Your task to perform on an android device: check battery use Image 0: 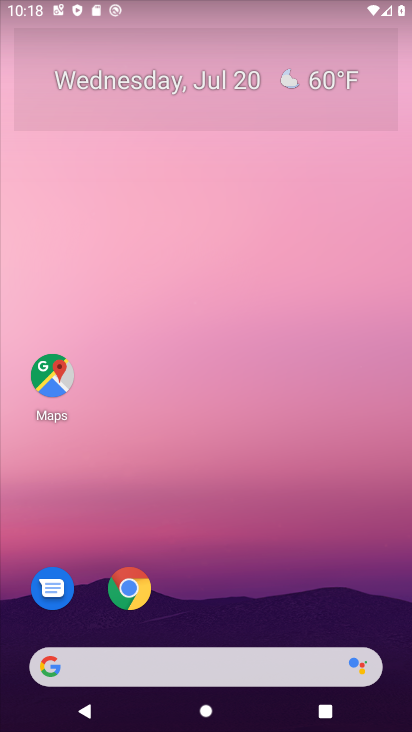
Step 0: drag from (240, 619) to (263, 162)
Your task to perform on an android device: check battery use Image 1: 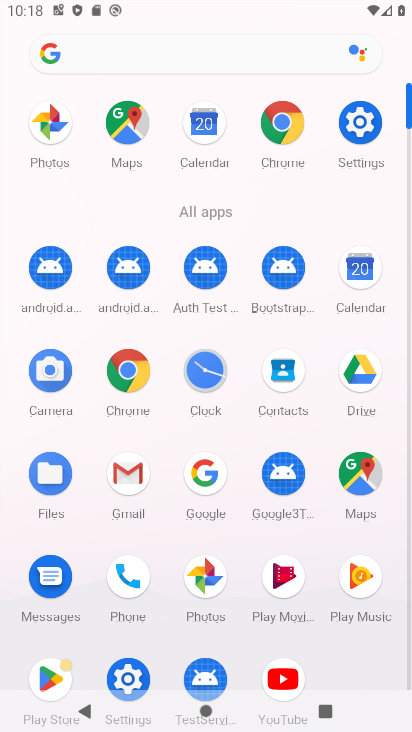
Step 1: click (127, 669)
Your task to perform on an android device: check battery use Image 2: 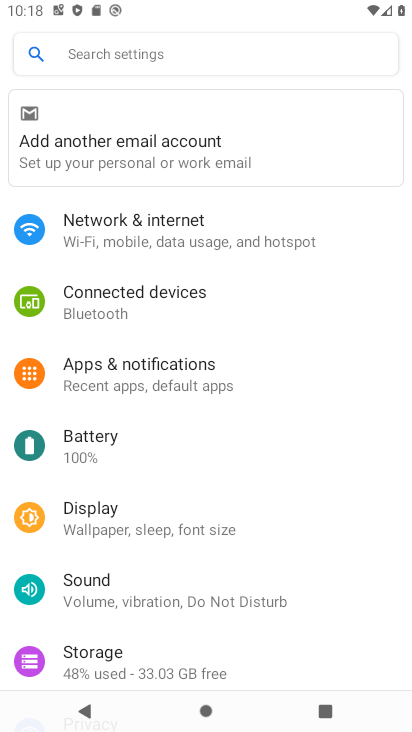
Step 2: click (97, 451)
Your task to perform on an android device: check battery use Image 3: 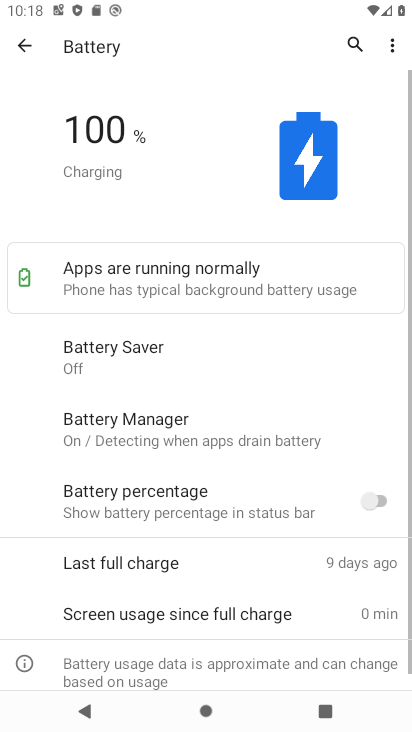
Step 3: click (387, 44)
Your task to perform on an android device: check battery use Image 4: 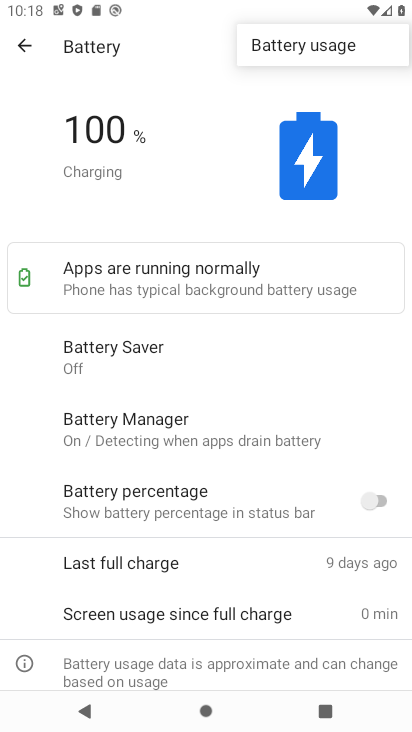
Step 4: click (312, 51)
Your task to perform on an android device: check battery use Image 5: 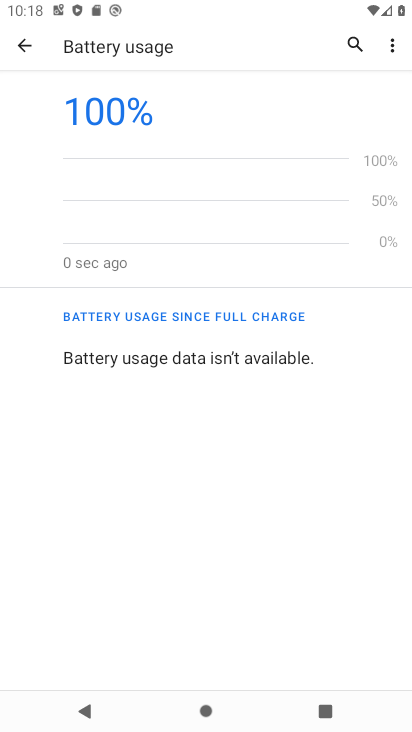
Step 5: task complete